Your task to perform on an android device: Open wifi settings Image 0: 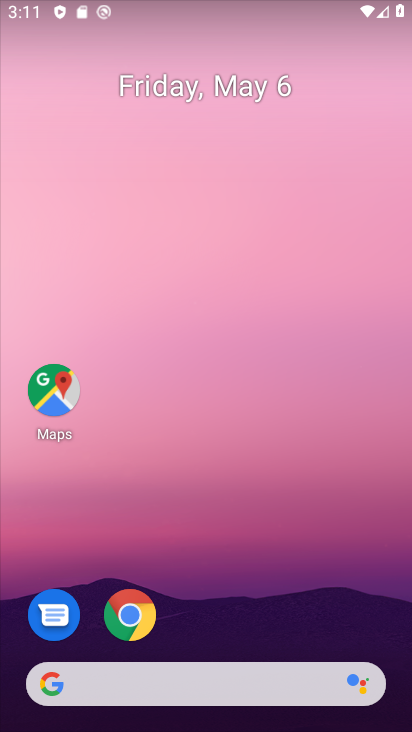
Step 0: drag from (303, 580) to (287, 133)
Your task to perform on an android device: Open wifi settings Image 1: 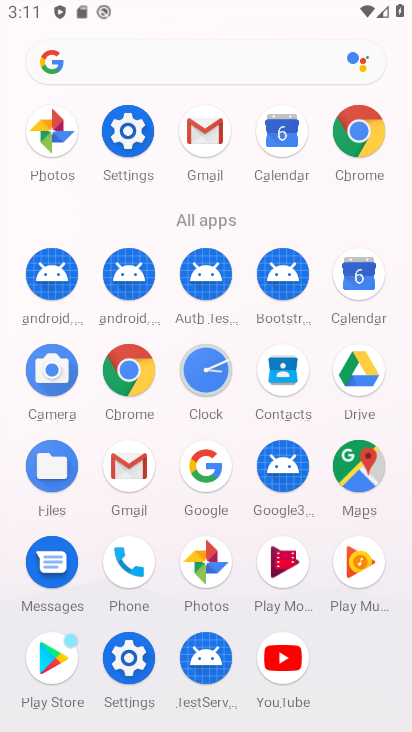
Step 1: drag from (232, 13) to (225, 610)
Your task to perform on an android device: Open wifi settings Image 2: 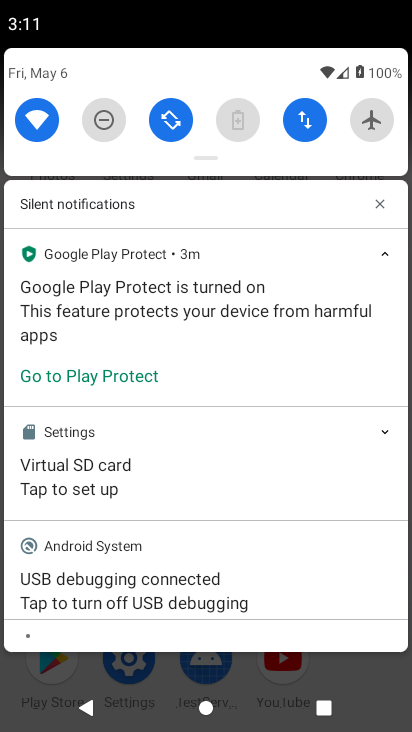
Step 2: click (37, 113)
Your task to perform on an android device: Open wifi settings Image 3: 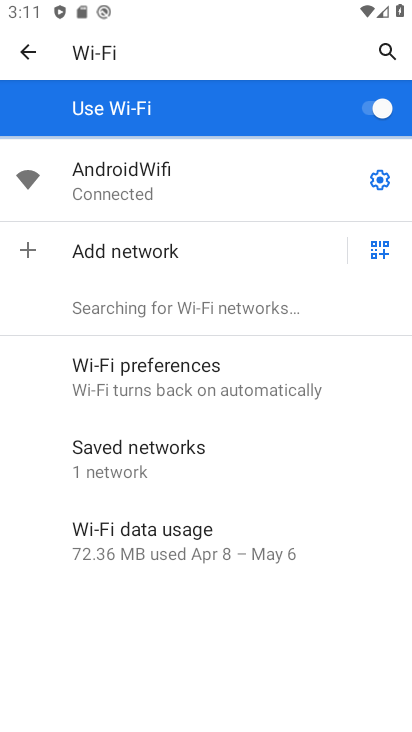
Step 3: task complete